Your task to perform on an android device: uninstall "Google Calendar" Image 0: 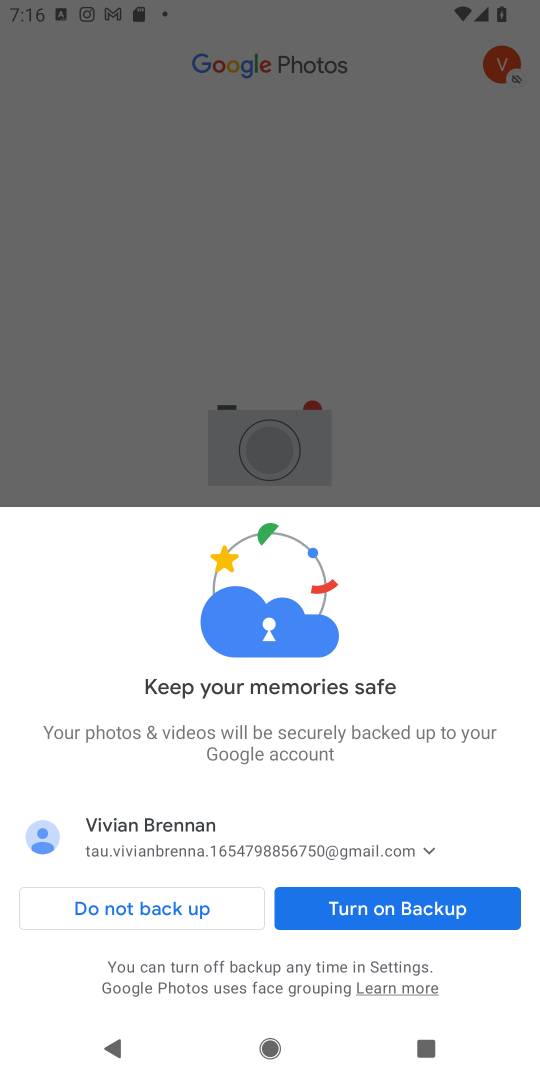
Step 0: press home button
Your task to perform on an android device: uninstall "Google Calendar" Image 1: 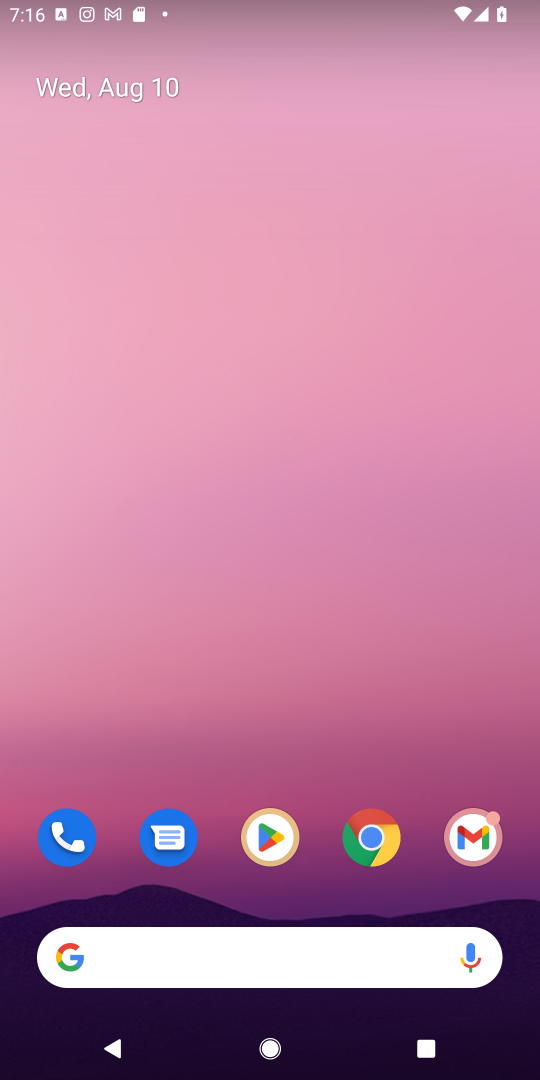
Step 1: click (275, 839)
Your task to perform on an android device: uninstall "Google Calendar" Image 2: 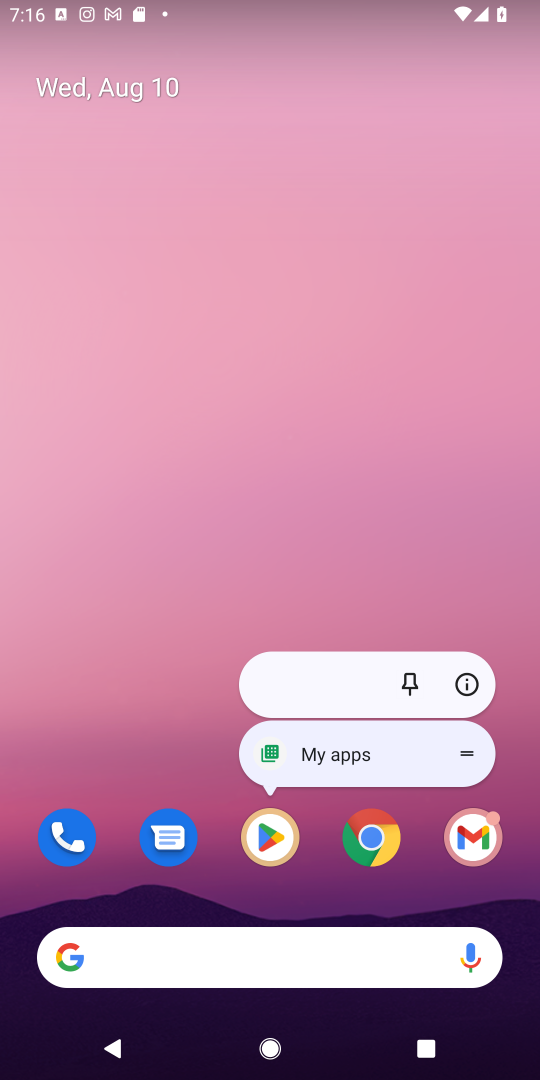
Step 2: click (275, 841)
Your task to perform on an android device: uninstall "Google Calendar" Image 3: 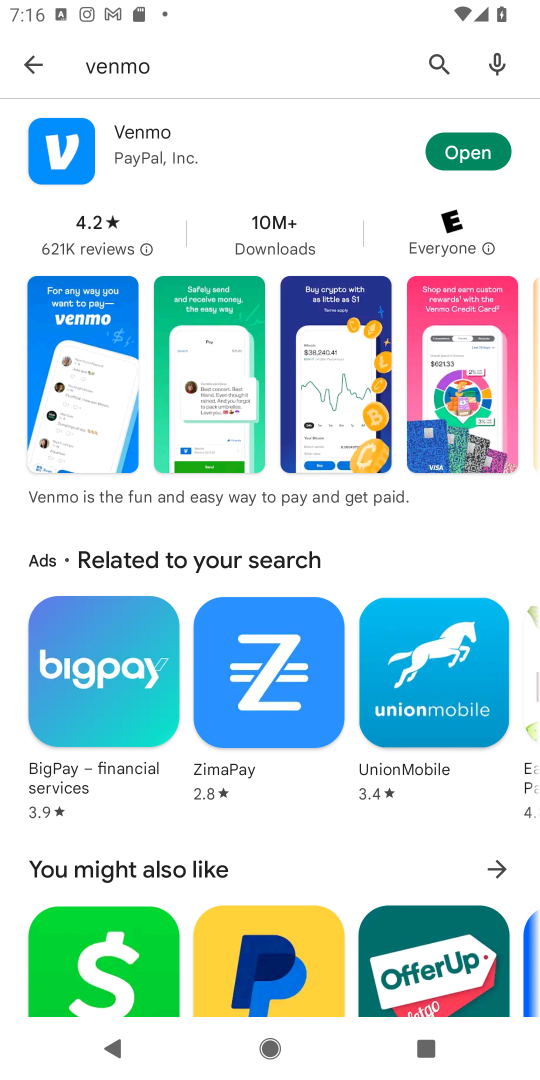
Step 3: click (439, 54)
Your task to perform on an android device: uninstall "Google Calendar" Image 4: 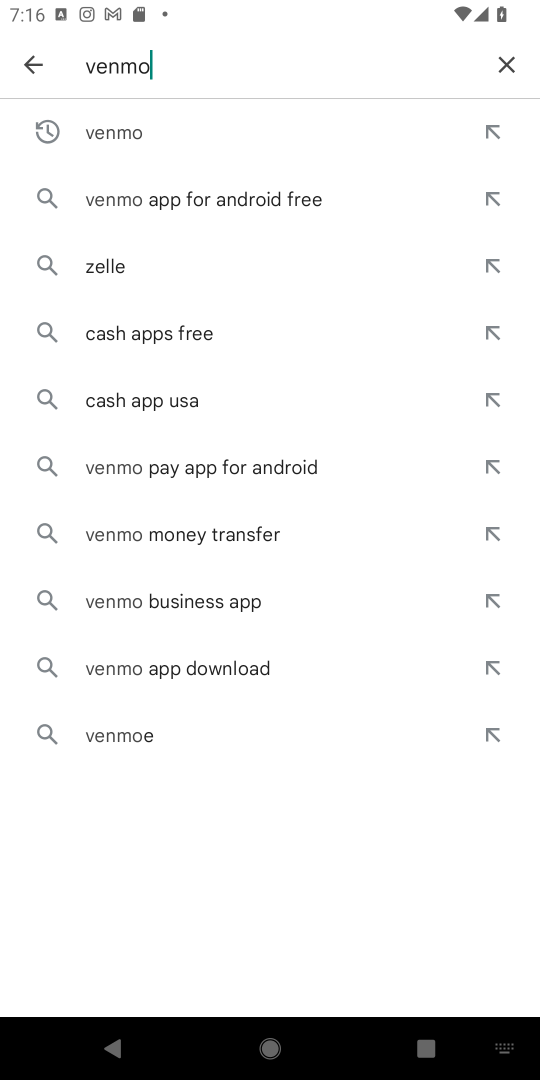
Step 4: click (502, 65)
Your task to perform on an android device: uninstall "Google Calendar" Image 5: 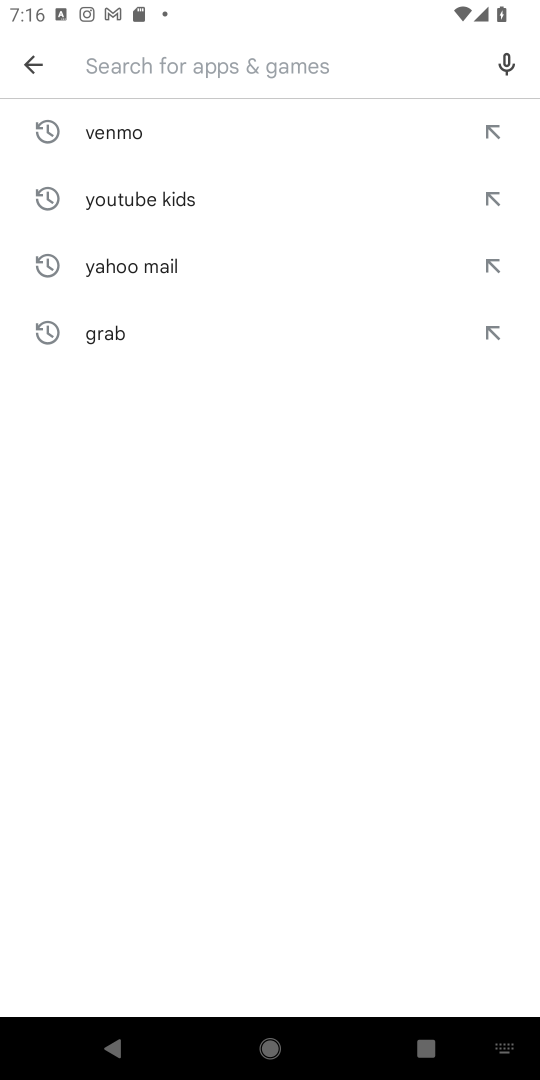
Step 5: type "Google Calendar"
Your task to perform on an android device: uninstall "Google Calendar" Image 6: 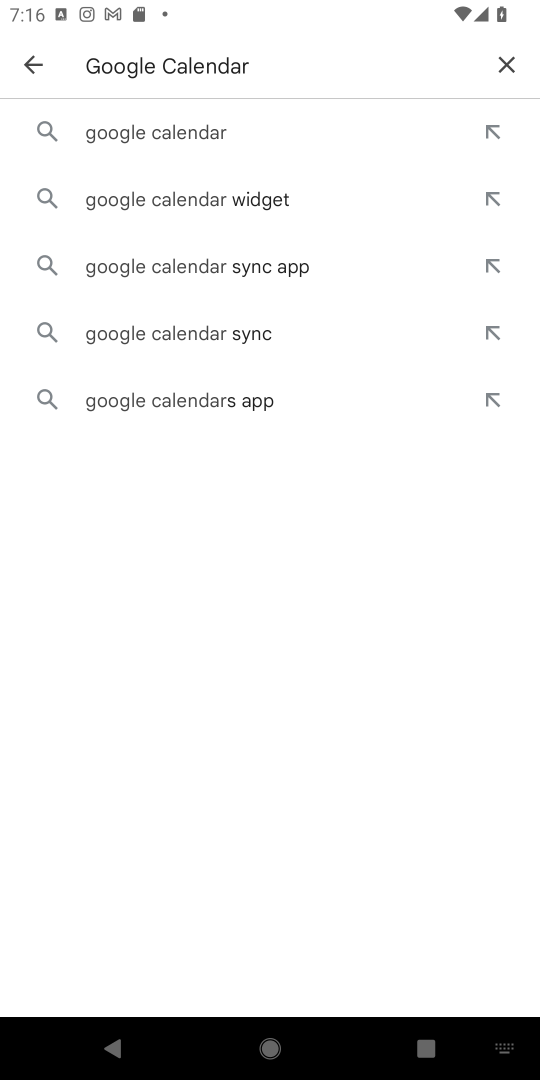
Step 6: click (174, 129)
Your task to perform on an android device: uninstall "Google Calendar" Image 7: 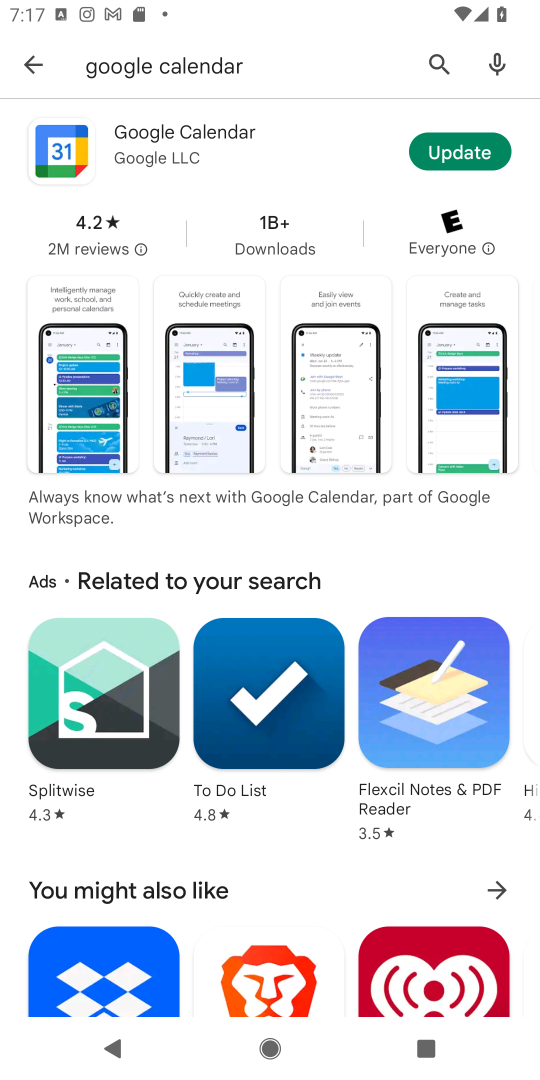
Step 7: click (172, 137)
Your task to perform on an android device: uninstall "Google Calendar" Image 8: 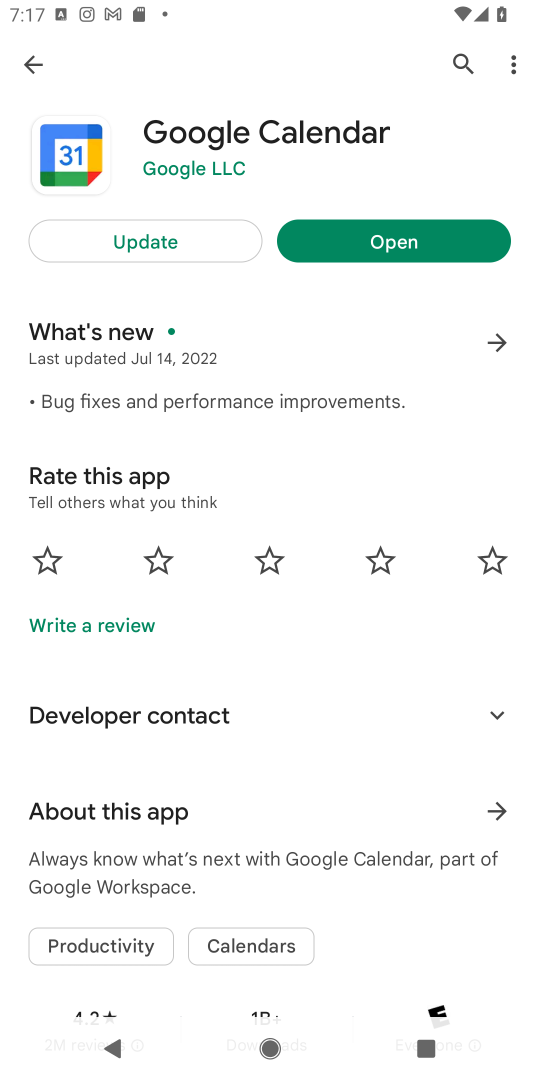
Step 8: task complete